Your task to perform on an android device: Go to internet settings Image 0: 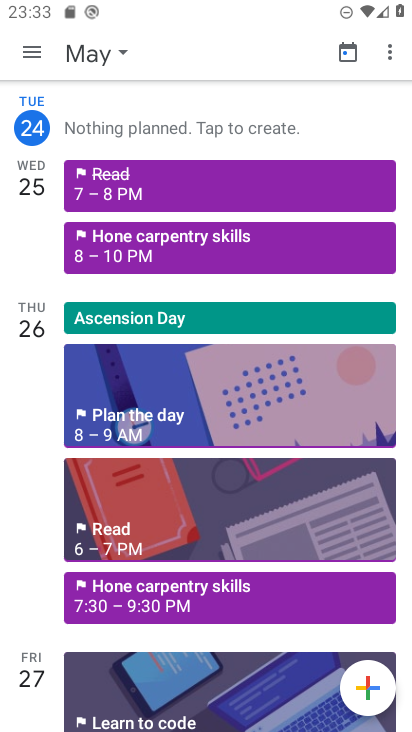
Step 0: press home button
Your task to perform on an android device: Go to internet settings Image 1: 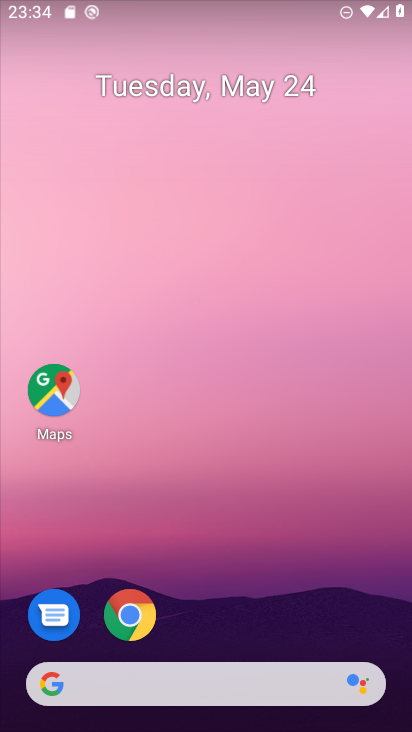
Step 1: drag from (298, 691) to (400, 15)
Your task to perform on an android device: Go to internet settings Image 2: 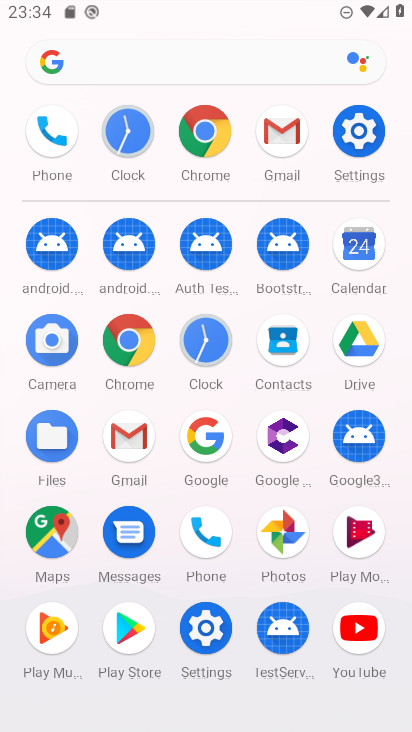
Step 2: click (349, 106)
Your task to perform on an android device: Go to internet settings Image 3: 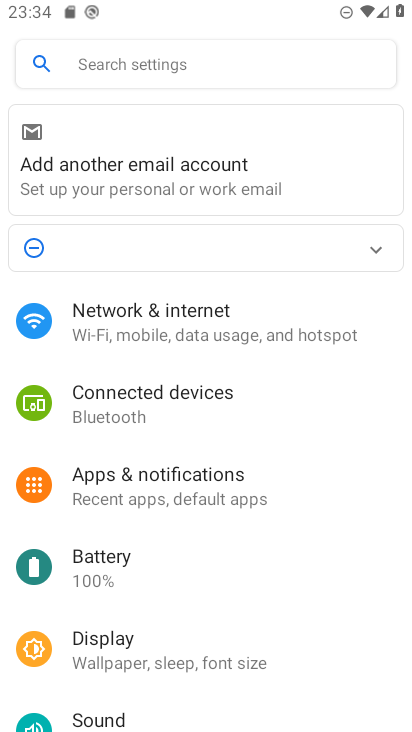
Step 3: click (127, 323)
Your task to perform on an android device: Go to internet settings Image 4: 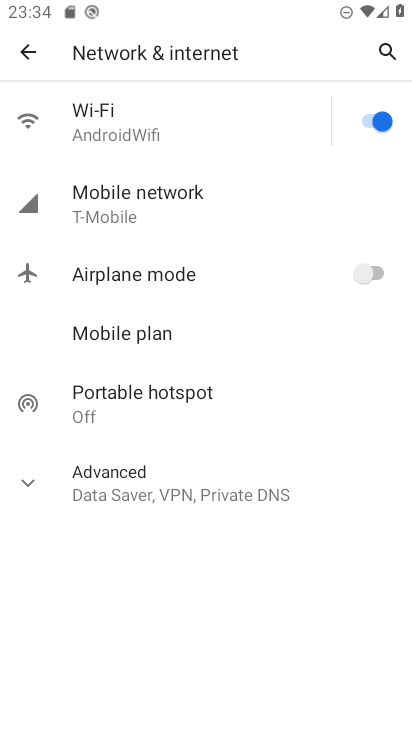
Step 4: task complete